Your task to perform on an android device: turn on bluetooth scan Image 0: 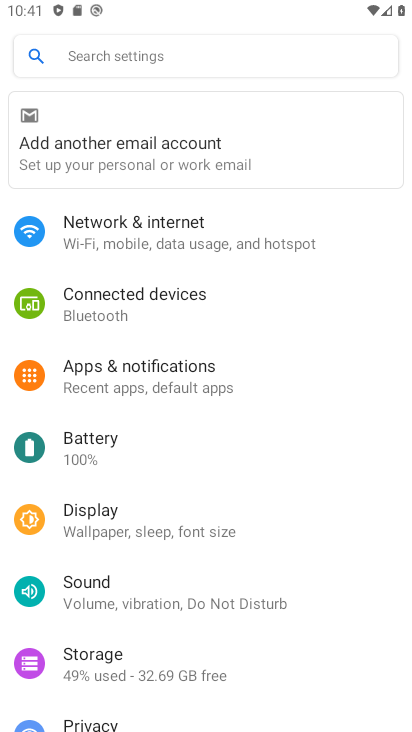
Step 0: press back button
Your task to perform on an android device: turn on bluetooth scan Image 1: 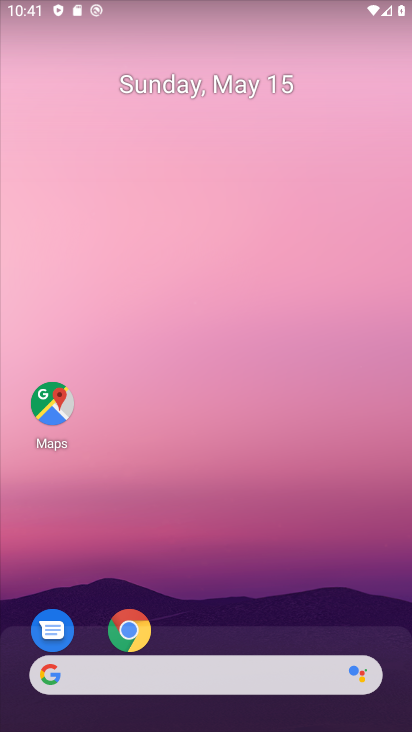
Step 1: drag from (216, 613) to (290, 13)
Your task to perform on an android device: turn on bluetooth scan Image 2: 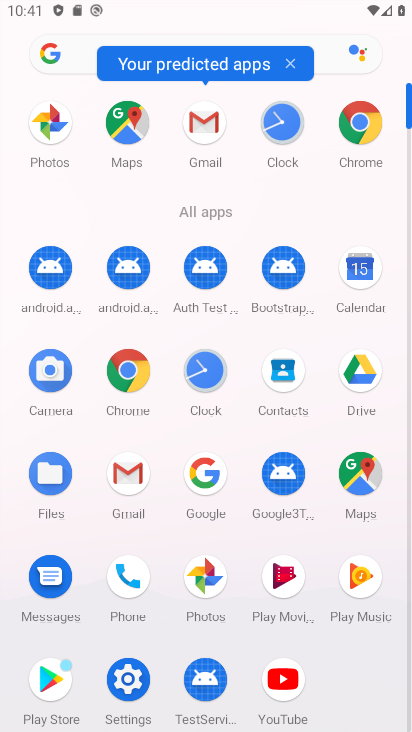
Step 2: click (112, 679)
Your task to perform on an android device: turn on bluetooth scan Image 3: 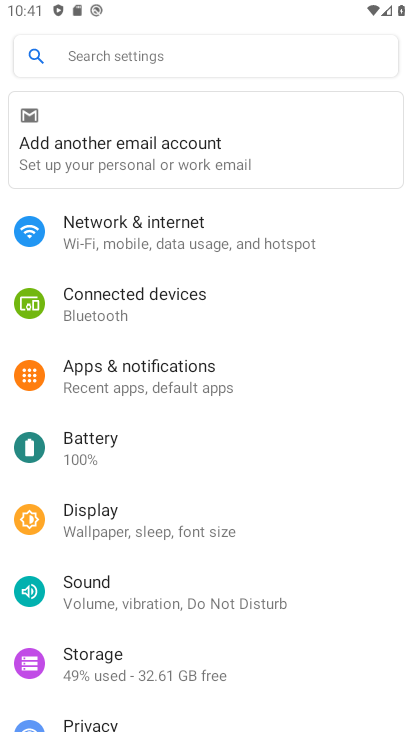
Step 3: click (118, 321)
Your task to perform on an android device: turn on bluetooth scan Image 4: 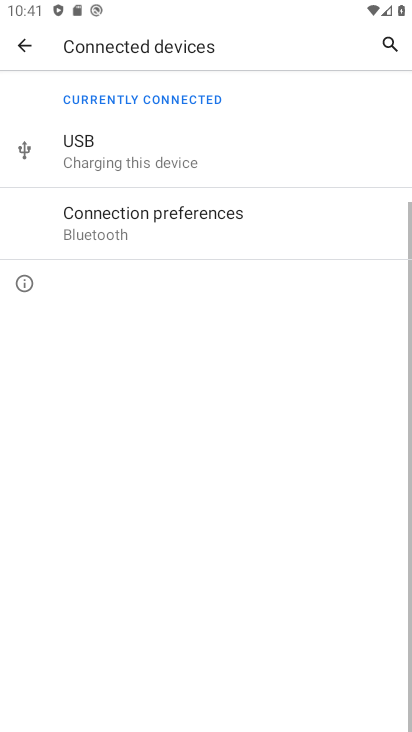
Step 4: click (130, 225)
Your task to perform on an android device: turn on bluetooth scan Image 5: 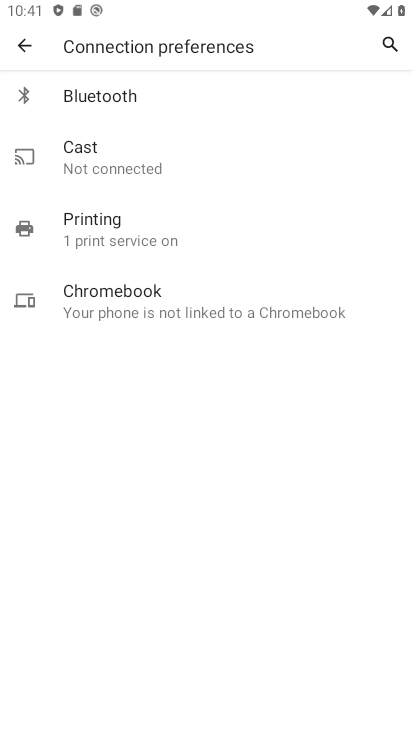
Step 5: click (146, 84)
Your task to perform on an android device: turn on bluetooth scan Image 6: 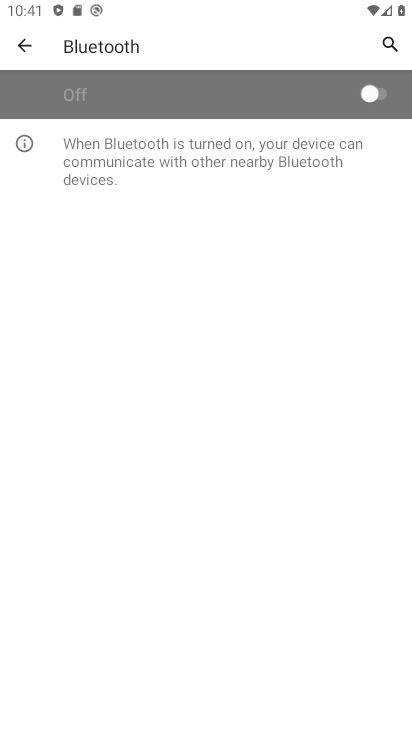
Step 6: click (380, 90)
Your task to perform on an android device: turn on bluetooth scan Image 7: 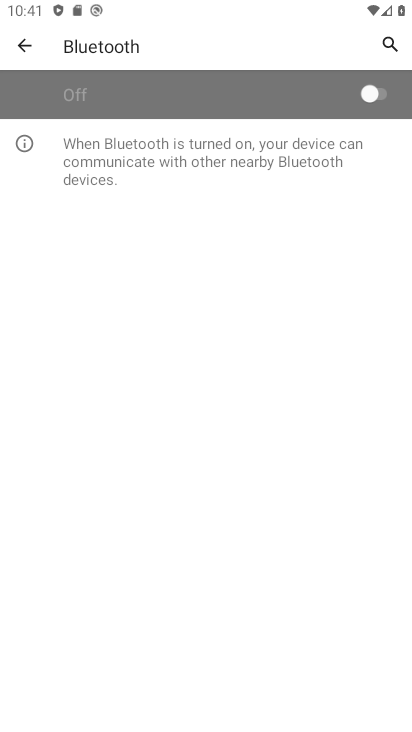
Step 7: task complete